Your task to perform on an android device: turn off priority inbox in the gmail app Image 0: 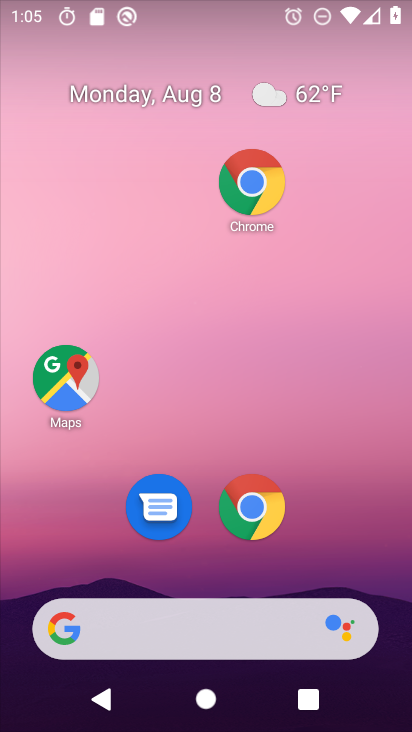
Step 0: drag from (342, 540) to (369, 27)
Your task to perform on an android device: turn off priority inbox in the gmail app Image 1: 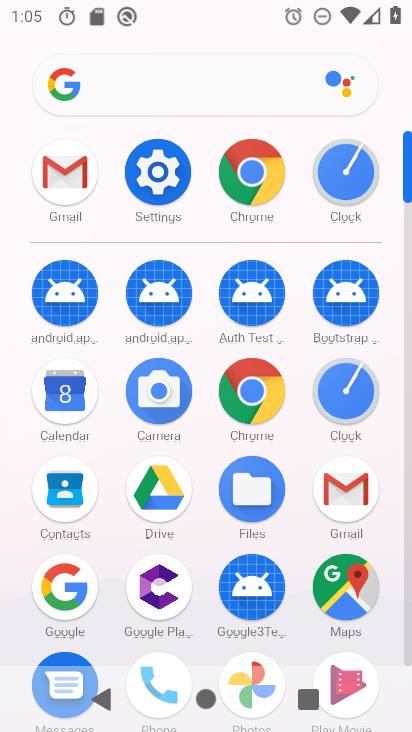
Step 1: click (63, 182)
Your task to perform on an android device: turn off priority inbox in the gmail app Image 2: 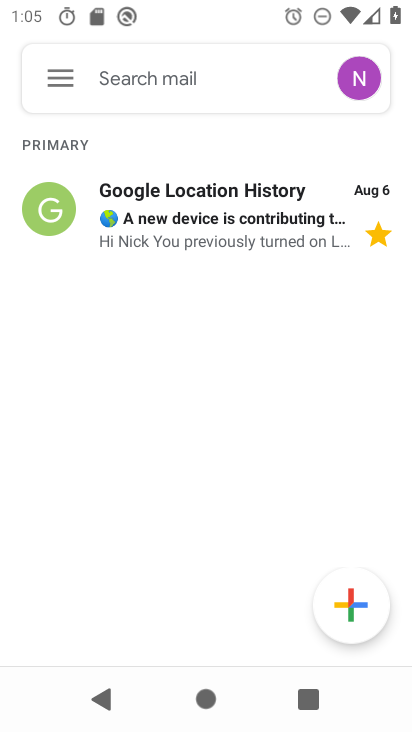
Step 2: click (62, 82)
Your task to perform on an android device: turn off priority inbox in the gmail app Image 3: 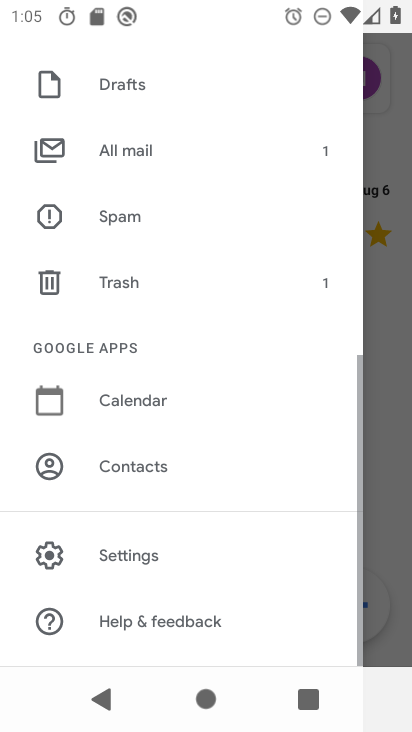
Step 3: click (111, 568)
Your task to perform on an android device: turn off priority inbox in the gmail app Image 4: 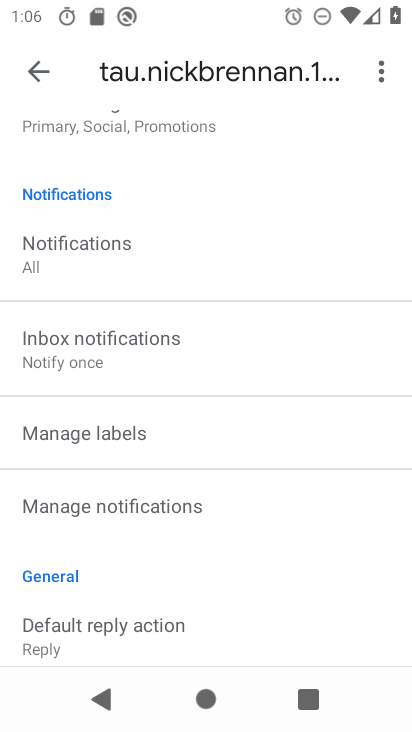
Step 4: drag from (154, 164) to (192, 567)
Your task to perform on an android device: turn off priority inbox in the gmail app Image 5: 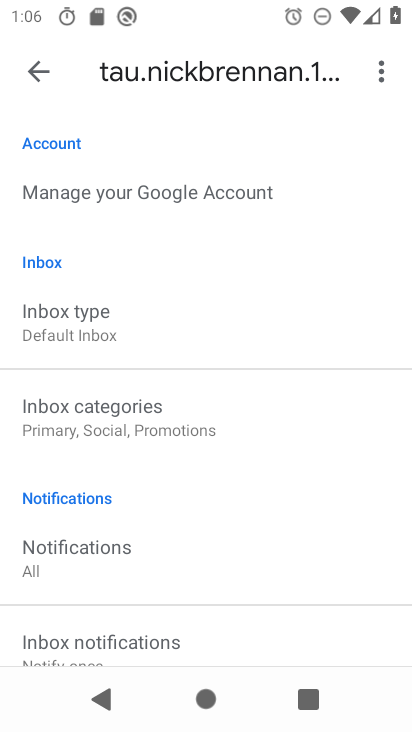
Step 5: click (99, 326)
Your task to perform on an android device: turn off priority inbox in the gmail app Image 6: 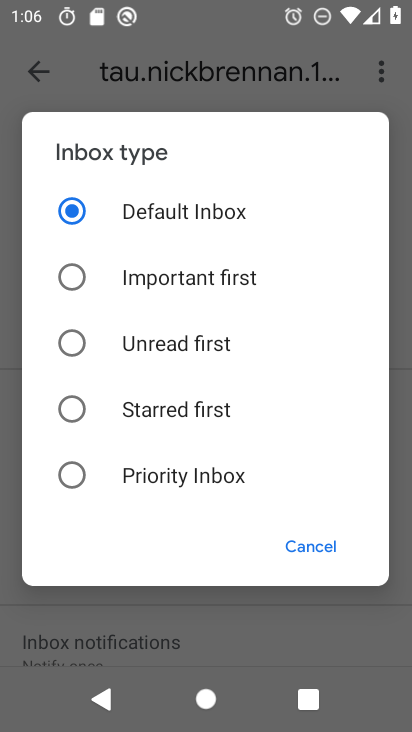
Step 6: task complete